Your task to perform on an android device: turn off sleep mode Image 0: 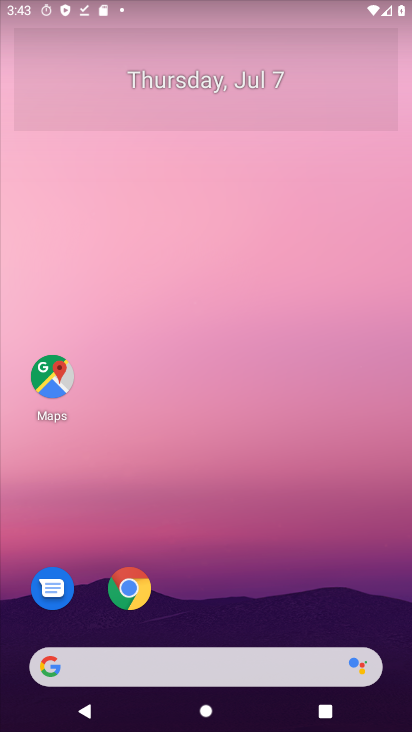
Step 0: drag from (319, 720) to (199, 63)
Your task to perform on an android device: turn off sleep mode Image 1: 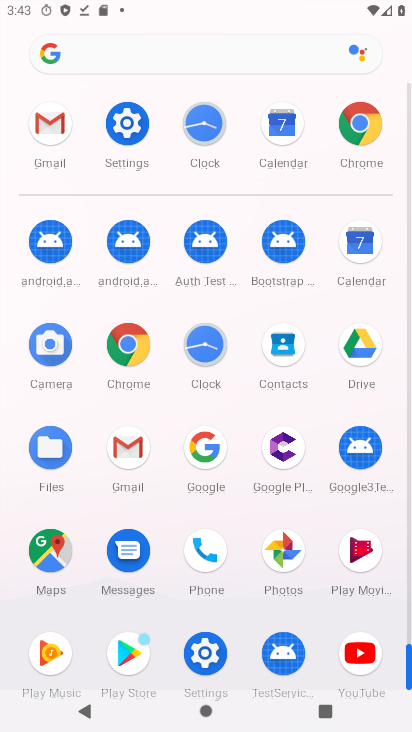
Step 1: click (125, 135)
Your task to perform on an android device: turn off sleep mode Image 2: 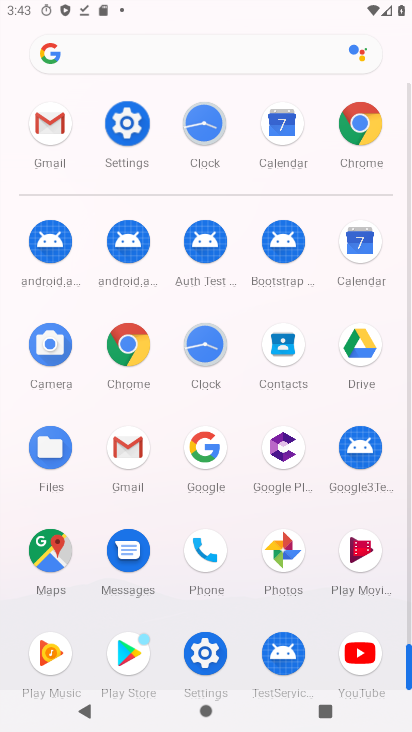
Step 2: click (126, 135)
Your task to perform on an android device: turn off sleep mode Image 3: 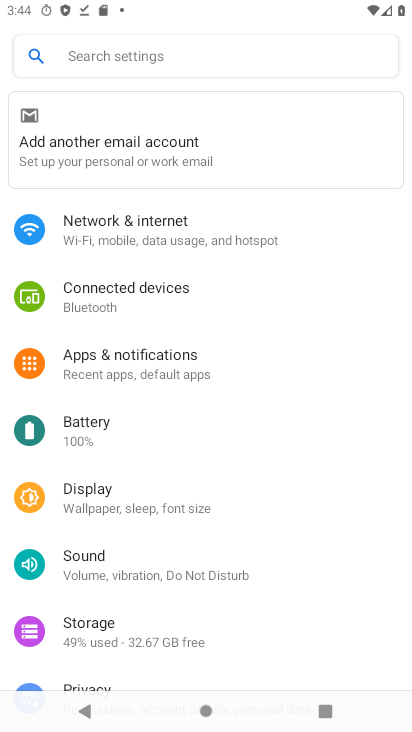
Step 3: click (107, 500)
Your task to perform on an android device: turn off sleep mode Image 4: 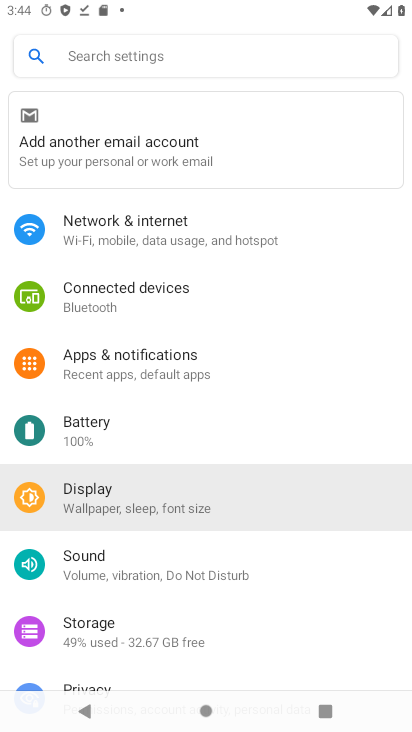
Step 4: click (116, 497)
Your task to perform on an android device: turn off sleep mode Image 5: 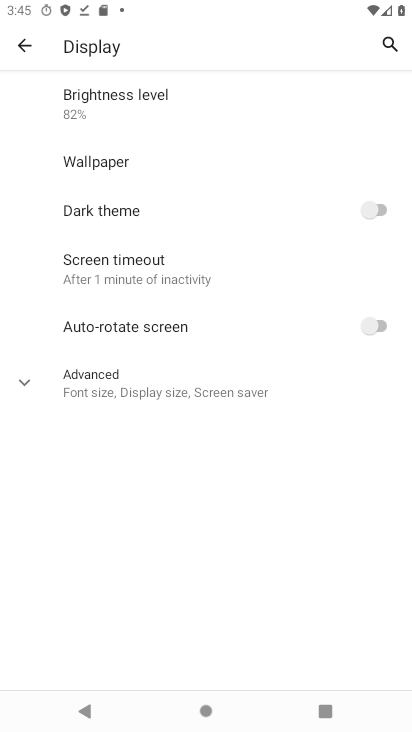
Step 5: click (136, 268)
Your task to perform on an android device: turn off sleep mode Image 6: 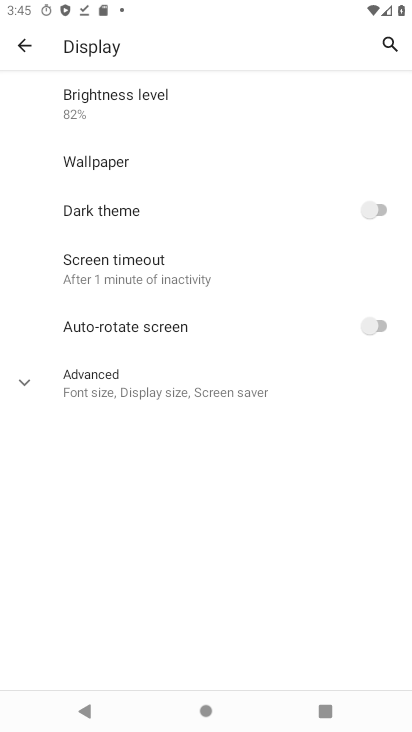
Step 6: click (139, 271)
Your task to perform on an android device: turn off sleep mode Image 7: 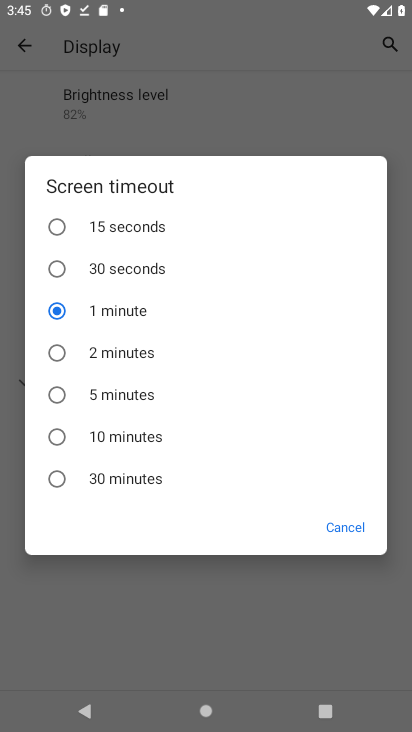
Step 7: click (60, 270)
Your task to perform on an android device: turn off sleep mode Image 8: 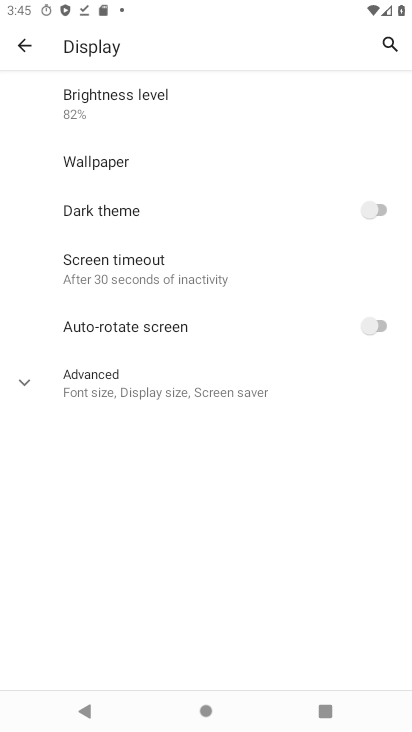
Step 8: task complete